Your task to perform on an android device: Open Chrome and go to settings Image 0: 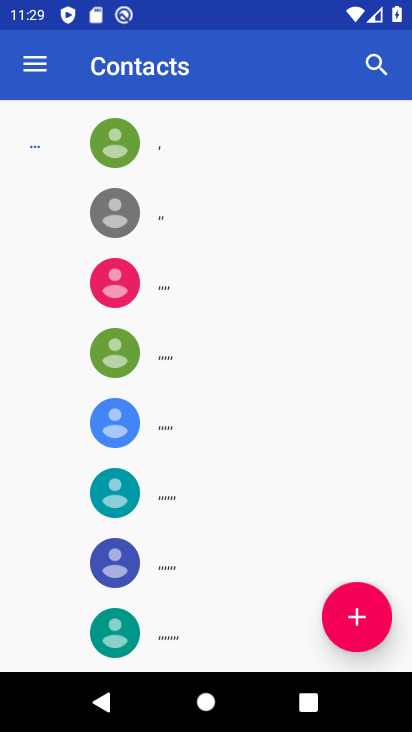
Step 0: press back button
Your task to perform on an android device: Open Chrome and go to settings Image 1: 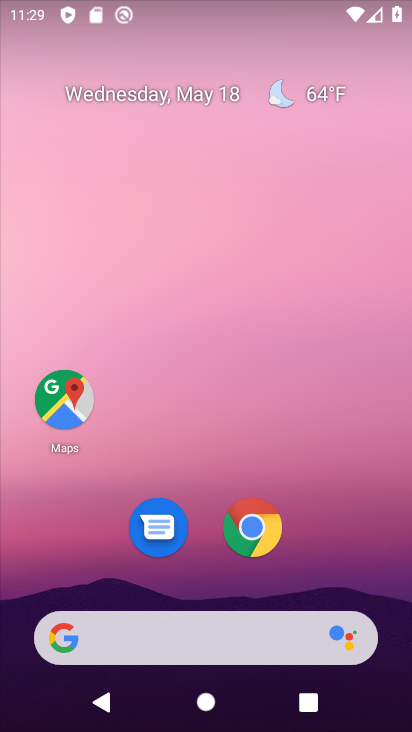
Step 1: click (262, 519)
Your task to perform on an android device: Open Chrome and go to settings Image 2: 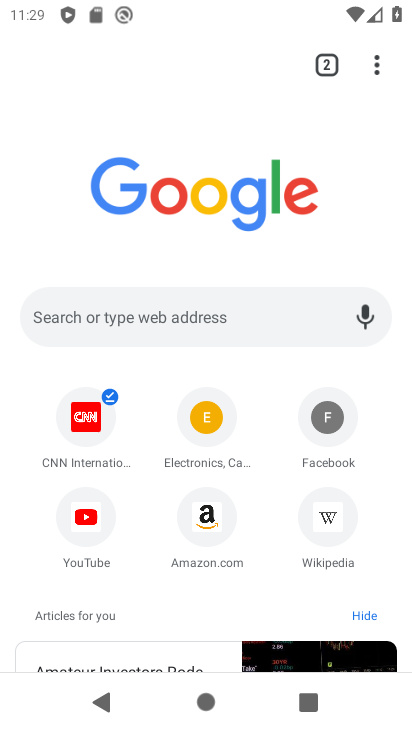
Step 2: task complete